Your task to perform on an android device: Open Google Chrome Image 0: 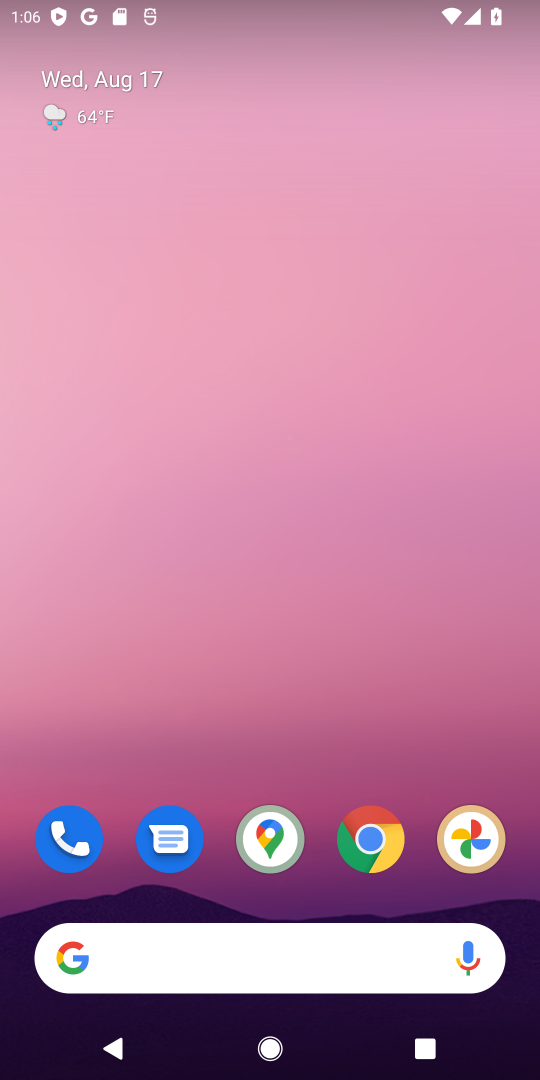
Step 0: click (375, 839)
Your task to perform on an android device: Open Google Chrome Image 1: 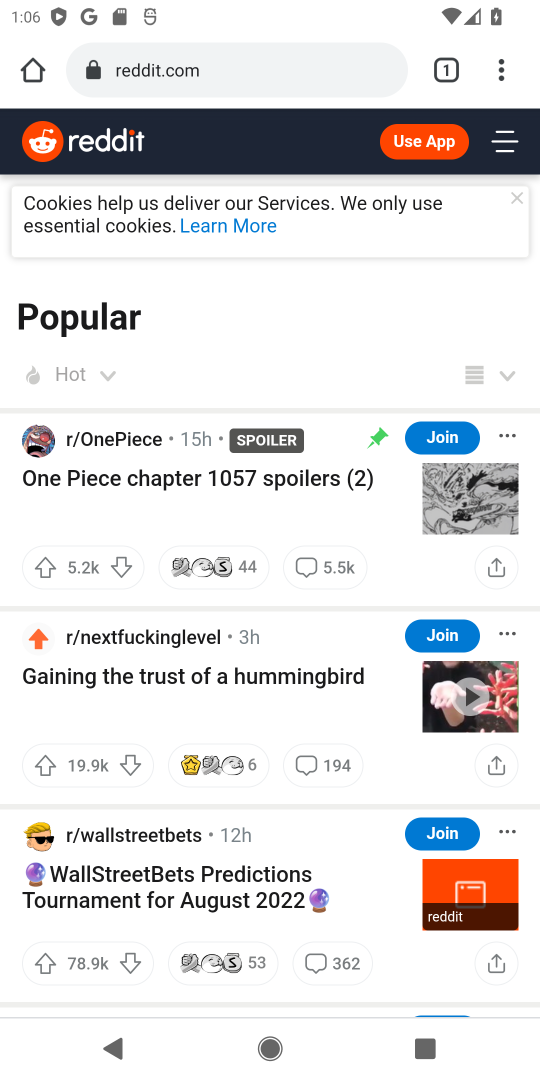
Step 1: task complete